Your task to perform on an android device: open app "DoorDash - Food Delivery" Image 0: 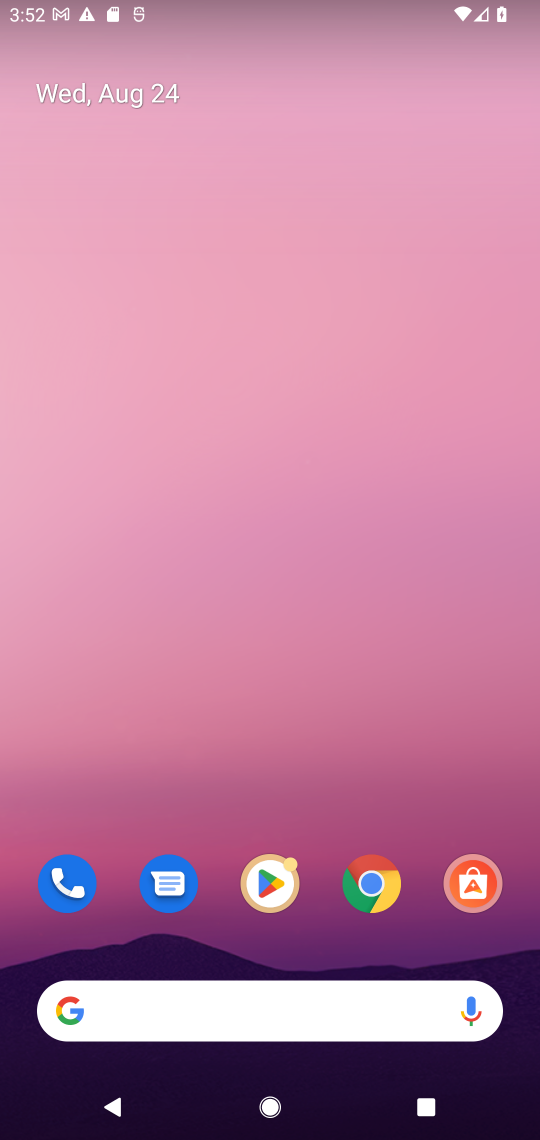
Step 0: drag from (370, 977) to (346, 462)
Your task to perform on an android device: open app "DoorDash - Food Delivery" Image 1: 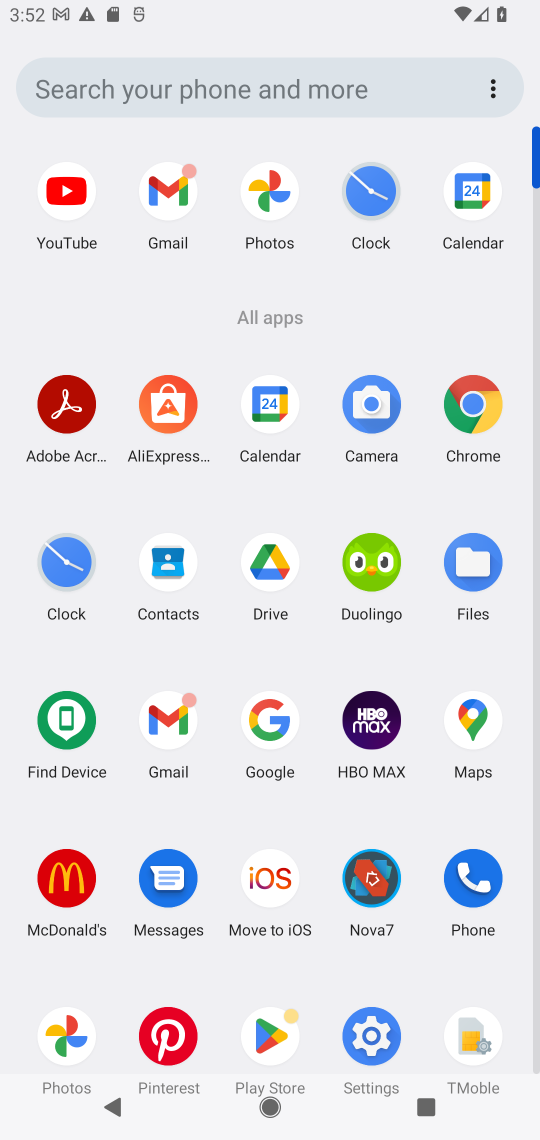
Step 1: click (271, 1047)
Your task to perform on an android device: open app "DoorDash - Food Delivery" Image 2: 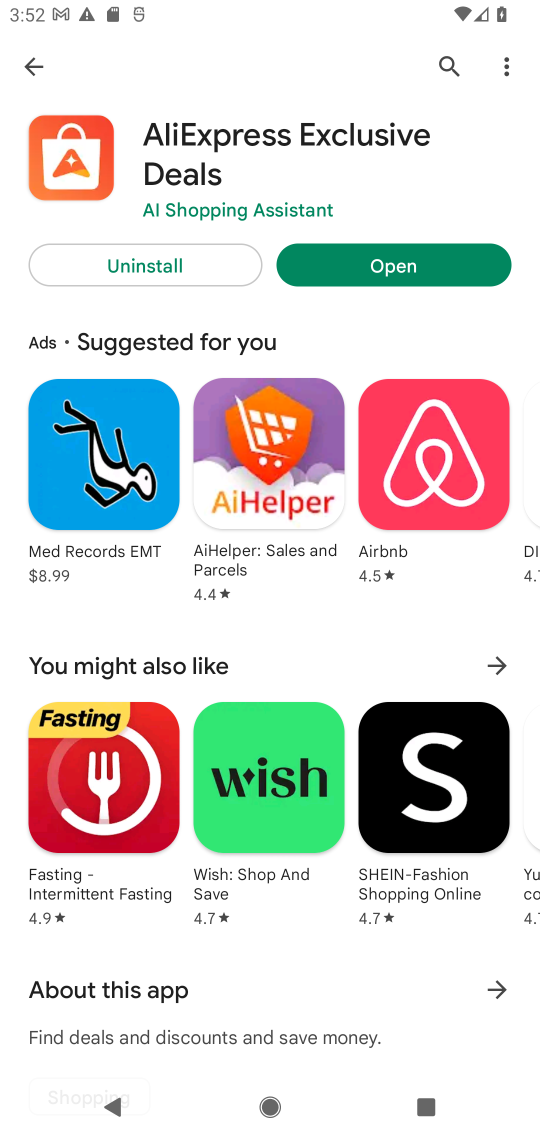
Step 2: click (457, 64)
Your task to perform on an android device: open app "DoorDash - Food Delivery" Image 3: 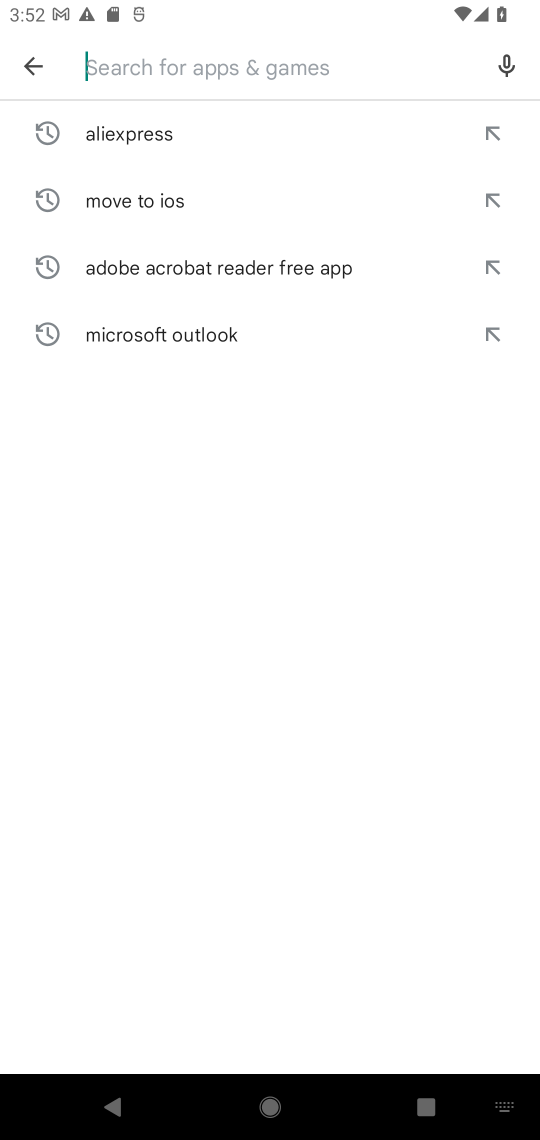
Step 3: type "DoorDash - Food Delivery"
Your task to perform on an android device: open app "DoorDash - Food Delivery" Image 4: 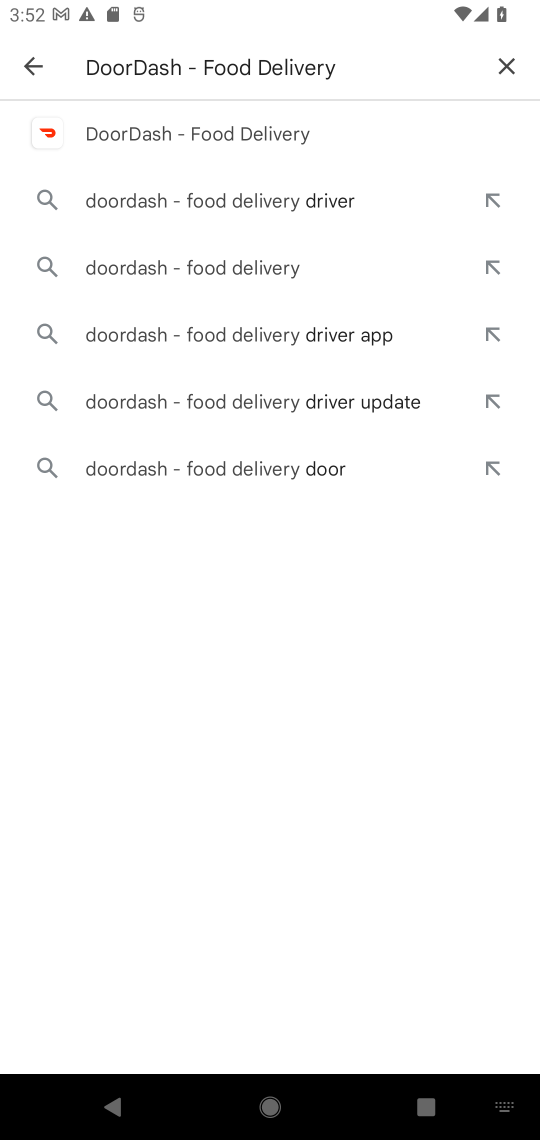
Step 4: click (180, 129)
Your task to perform on an android device: open app "DoorDash - Food Delivery" Image 5: 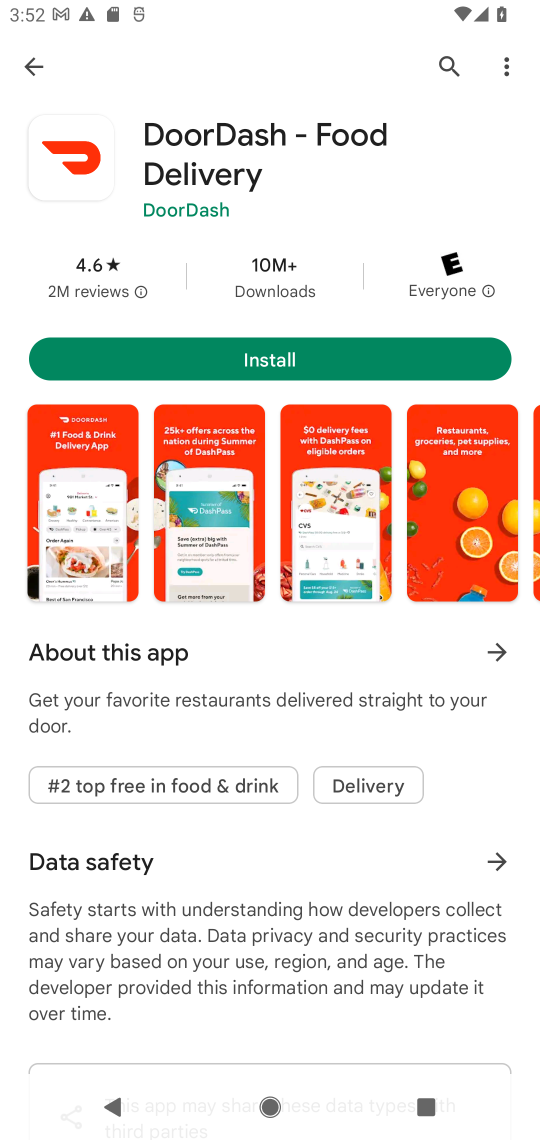
Step 5: click (285, 349)
Your task to perform on an android device: open app "DoorDash - Food Delivery" Image 6: 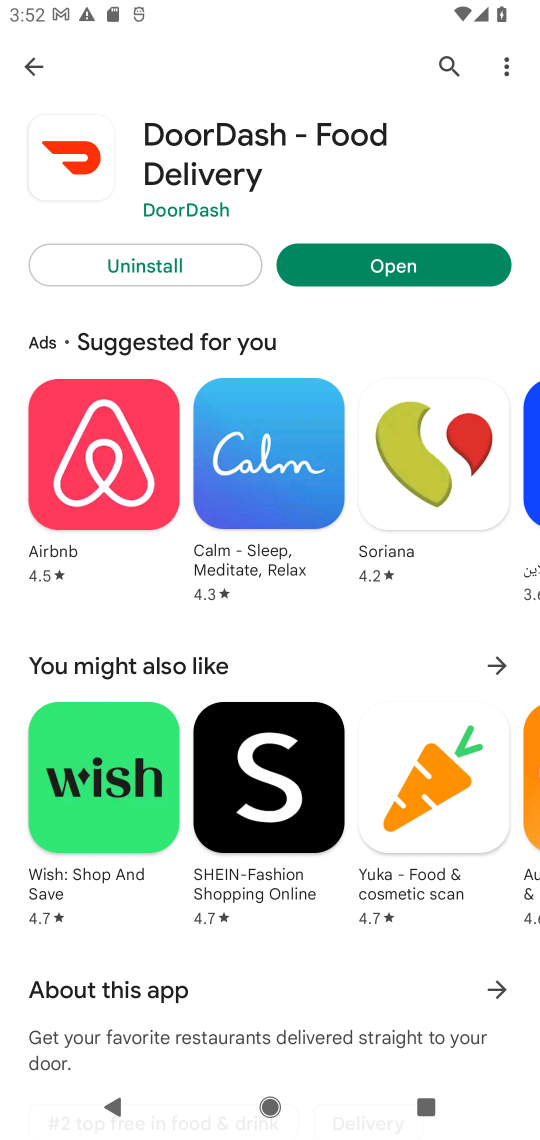
Step 6: click (337, 268)
Your task to perform on an android device: open app "DoorDash - Food Delivery" Image 7: 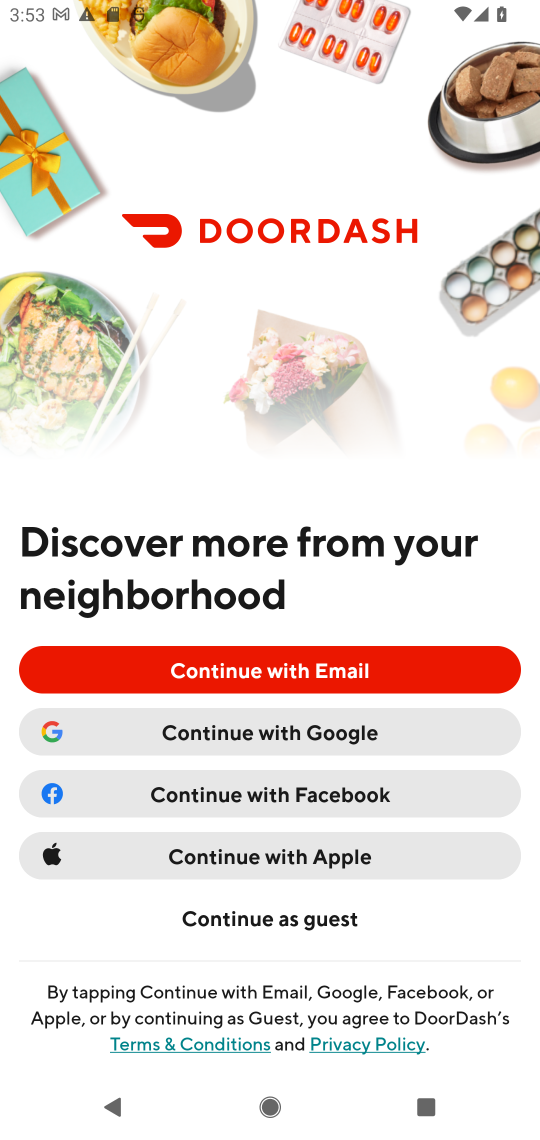
Step 7: task complete